Your task to perform on an android device: see sites visited before in the chrome app Image 0: 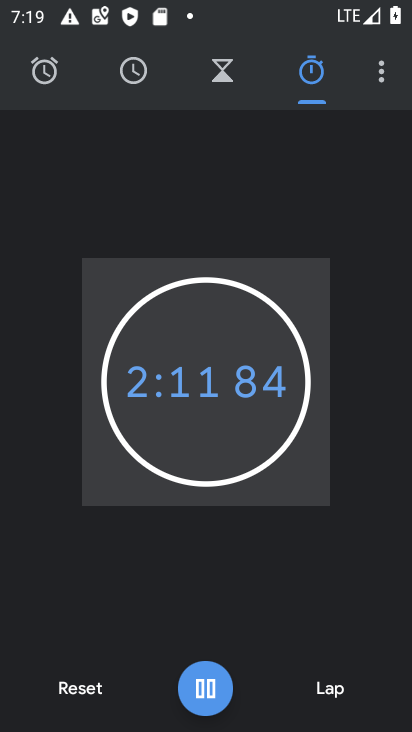
Step 0: press home button
Your task to perform on an android device: see sites visited before in the chrome app Image 1: 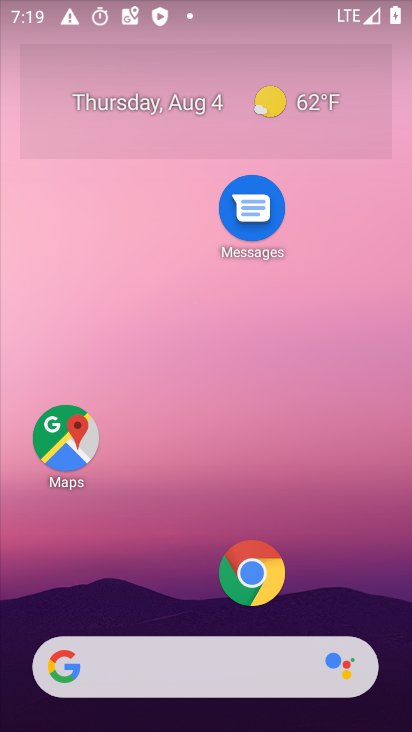
Step 1: click (243, 574)
Your task to perform on an android device: see sites visited before in the chrome app Image 2: 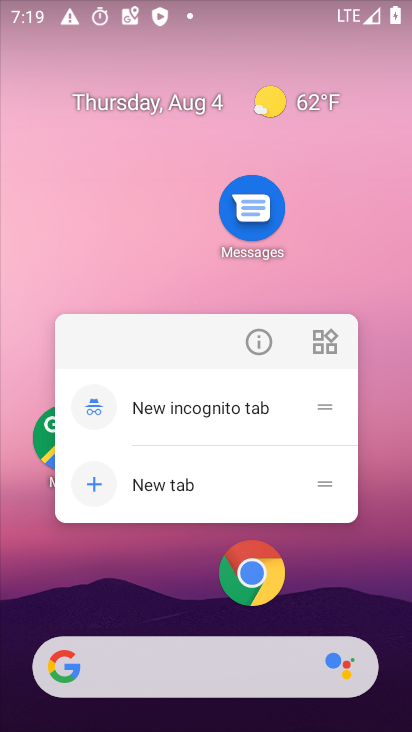
Step 2: click (148, 593)
Your task to perform on an android device: see sites visited before in the chrome app Image 3: 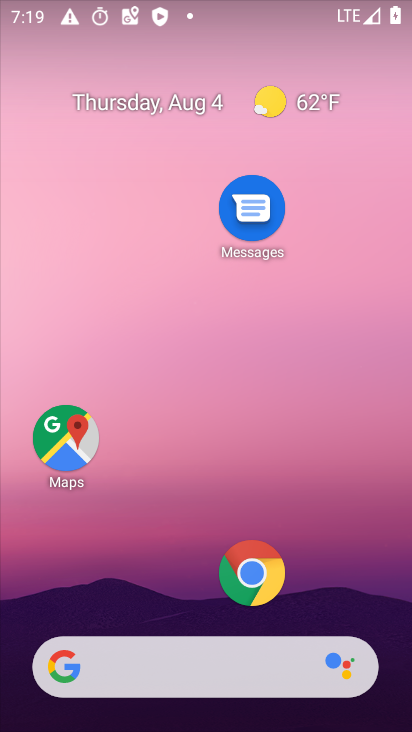
Step 3: drag from (175, 613) to (129, 219)
Your task to perform on an android device: see sites visited before in the chrome app Image 4: 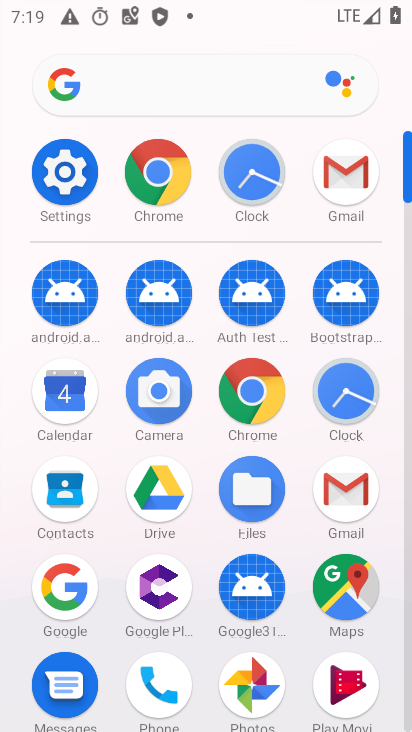
Step 4: click (159, 198)
Your task to perform on an android device: see sites visited before in the chrome app Image 5: 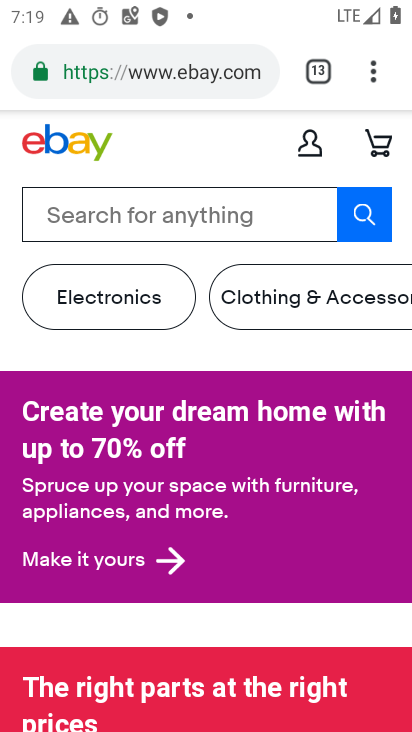
Step 5: task complete